Your task to perform on an android device: Open Youtube and go to the subscriptions tab Image 0: 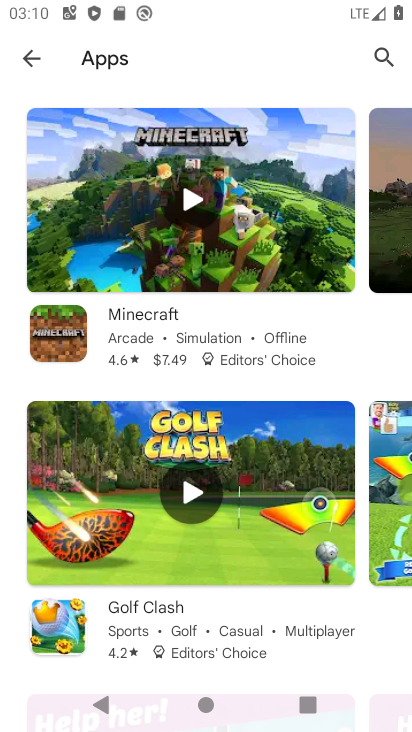
Step 0: drag from (230, 639) to (365, 193)
Your task to perform on an android device: Open Youtube and go to the subscriptions tab Image 1: 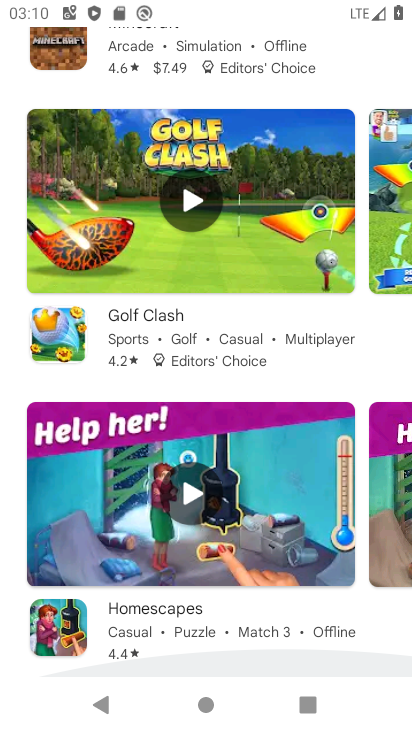
Step 1: drag from (362, 111) to (403, 574)
Your task to perform on an android device: Open Youtube and go to the subscriptions tab Image 2: 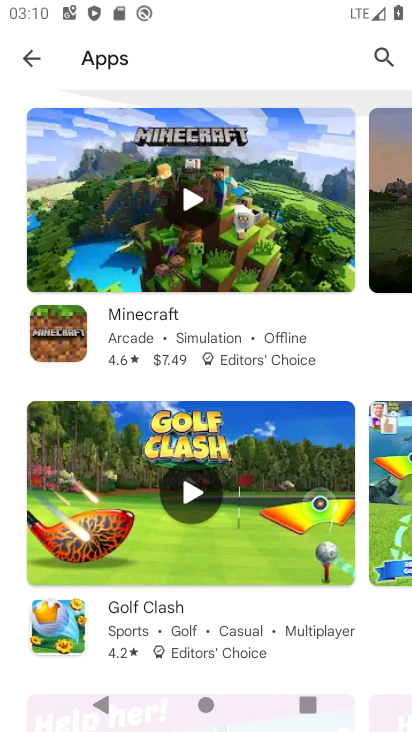
Step 2: press home button
Your task to perform on an android device: Open Youtube and go to the subscriptions tab Image 3: 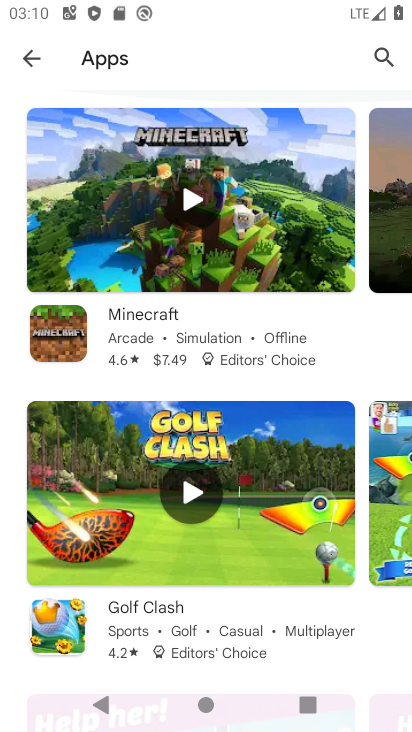
Step 3: click (394, 504)
Your task to perform on an android device: Open Youtube and go to the subscriptions tab Image 4: 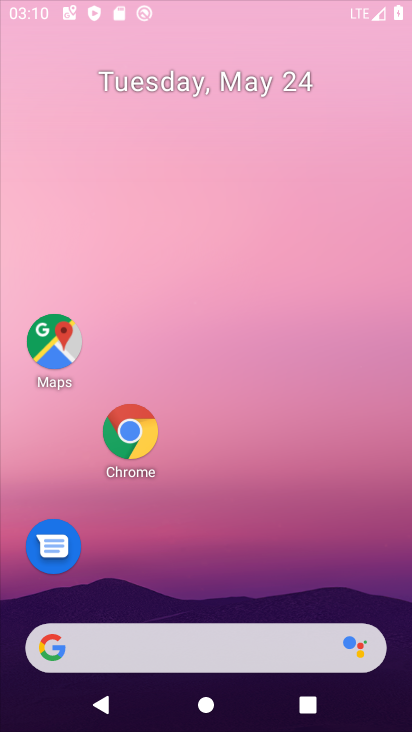
Step 4: drag from (198, 648) to (241, 266)
Your task to perform on an android device: Open Youtube and go to the subscriptions tab Image 5: 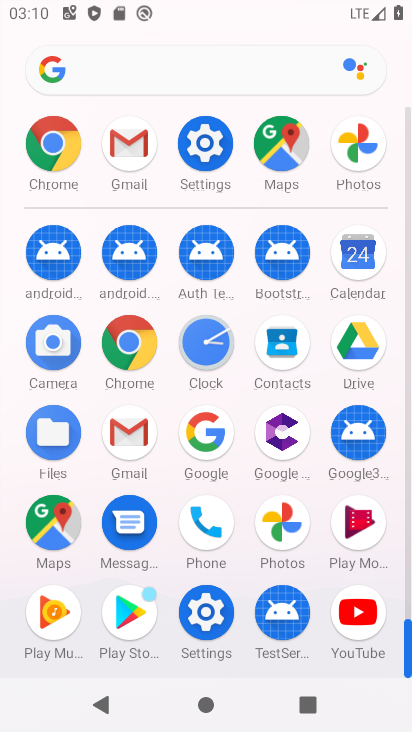
Step 5: click (355, 640)
Your task to perform on an android device: Open Youtube and go to the subscriptions tab Image 6: 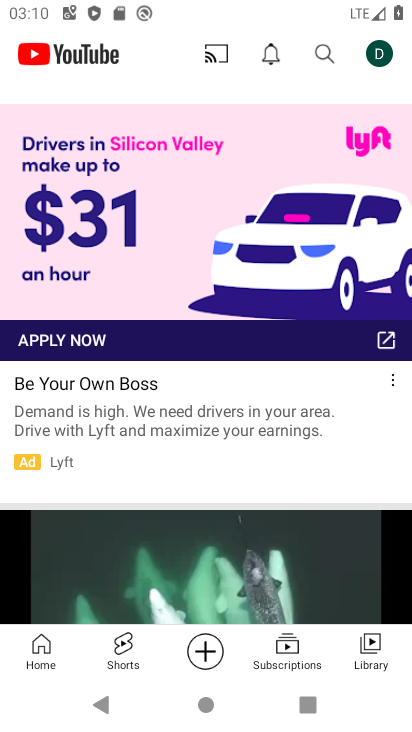
Step 6: click (293, 652)
Your task to perform on an android device: Open Youtube and go to the subscriptions tab Image 7: 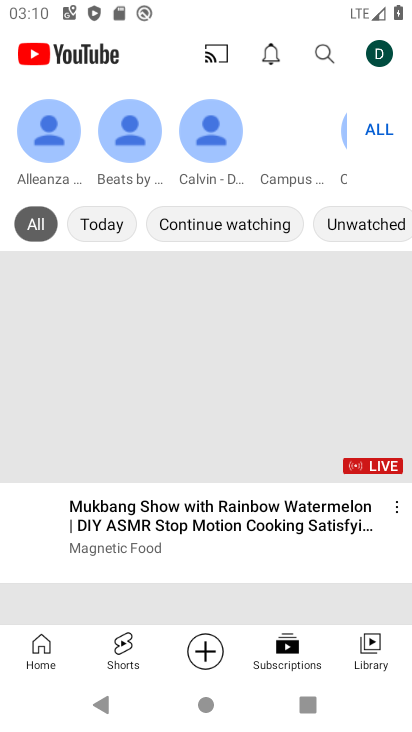
Step 7: task complete